Your task to perform on an android device: Open eBay Image 0: 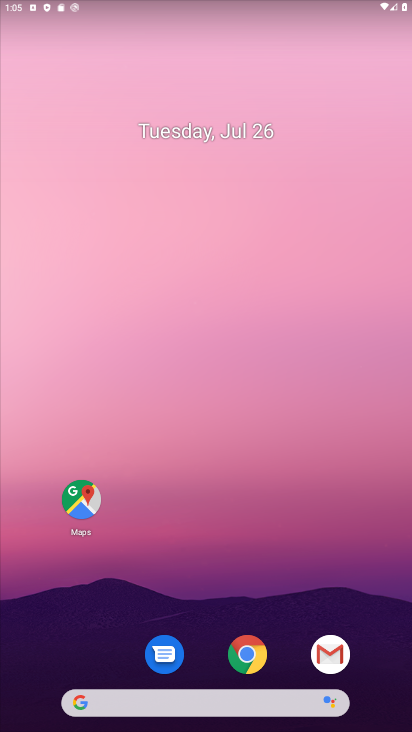
Step 0: click (255, 659)
Your task to perform on an android device: Open eBay Image 1: 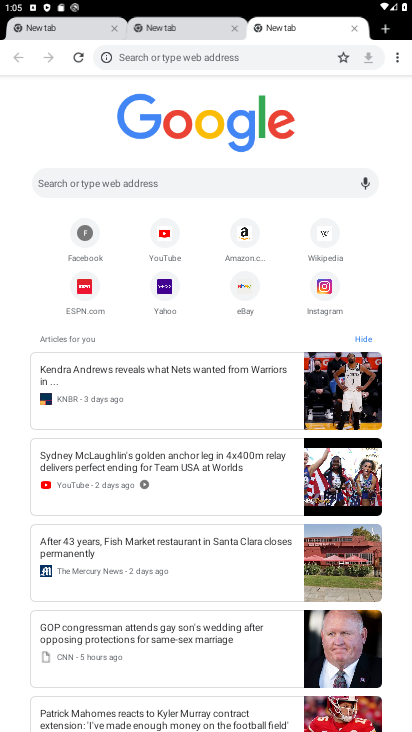
Step 1: click (249, 303)
Your task to perform on an android device: Open eBay Image 2: 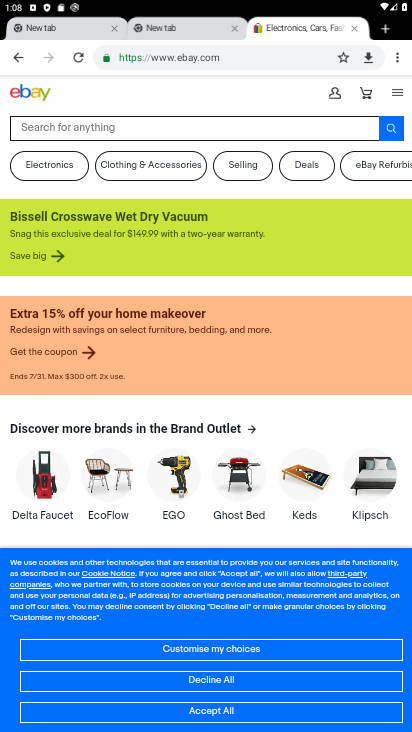
Step 2: task complete